Your task to perform on an android device: Show me productivity apps on the Play Store Image 0: 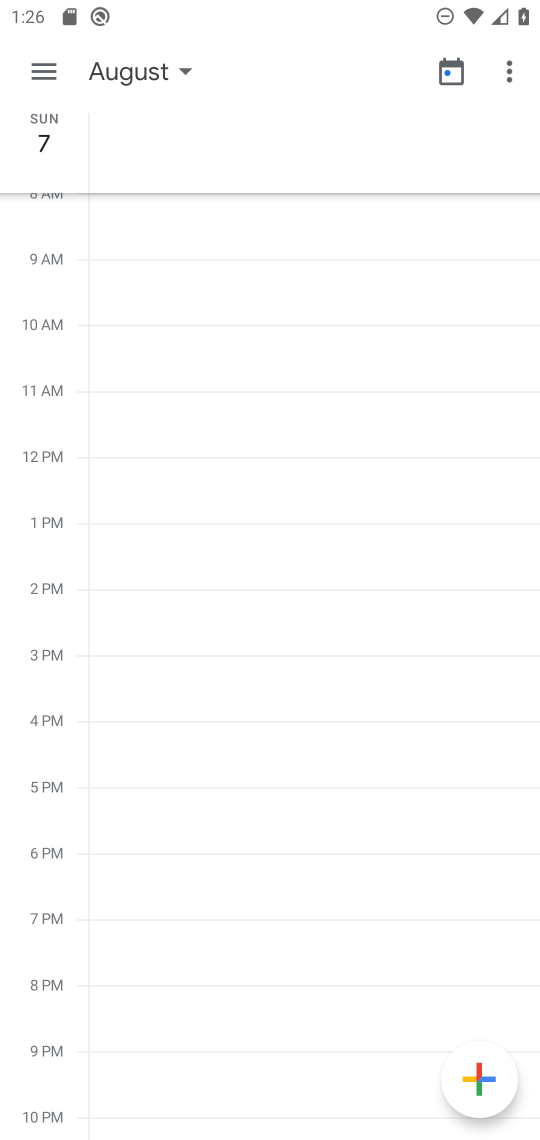
Step 0: press home button
Your task to perform on an android device: Show me productivity apps on the Play Store Image 1: 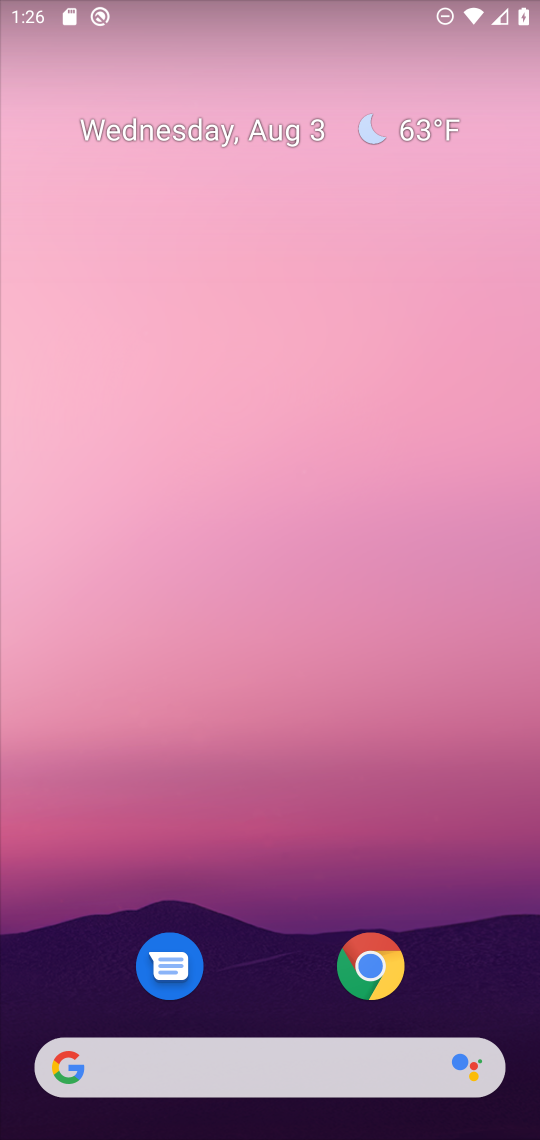
Step 1: drag from (270, 957) to (195, 264)
Your task to perform on an android device: Show me productivity apps on the Play Store Image 2: 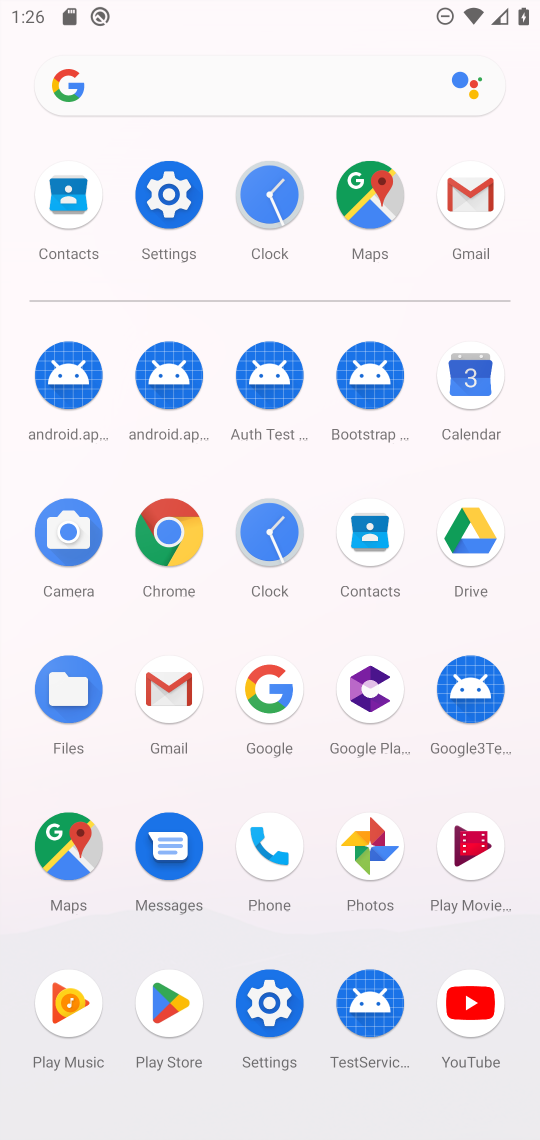
Step 2: click (179, 1004)
Your task to perform on an android device: Show me productivity apps on the Play Store Image 3: 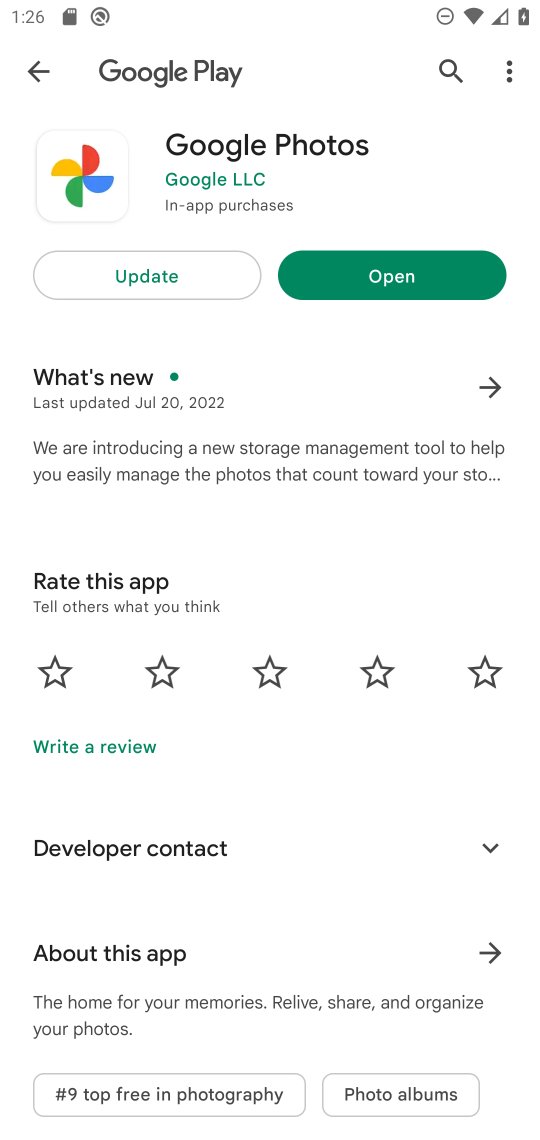
Step 3: click (448, 76)
Your task to perform on an android device: Show me productivity apps on the Play Store Image 4: 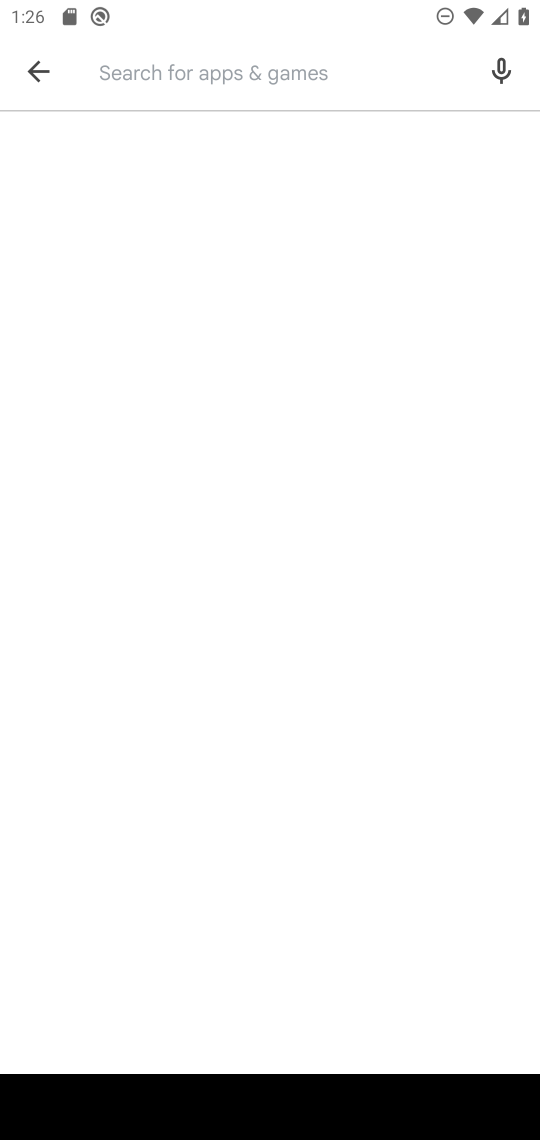
Step 4: click (38, 66)
Your task to perform on an android device: Show me productivity apps on the Play Store Image 5: 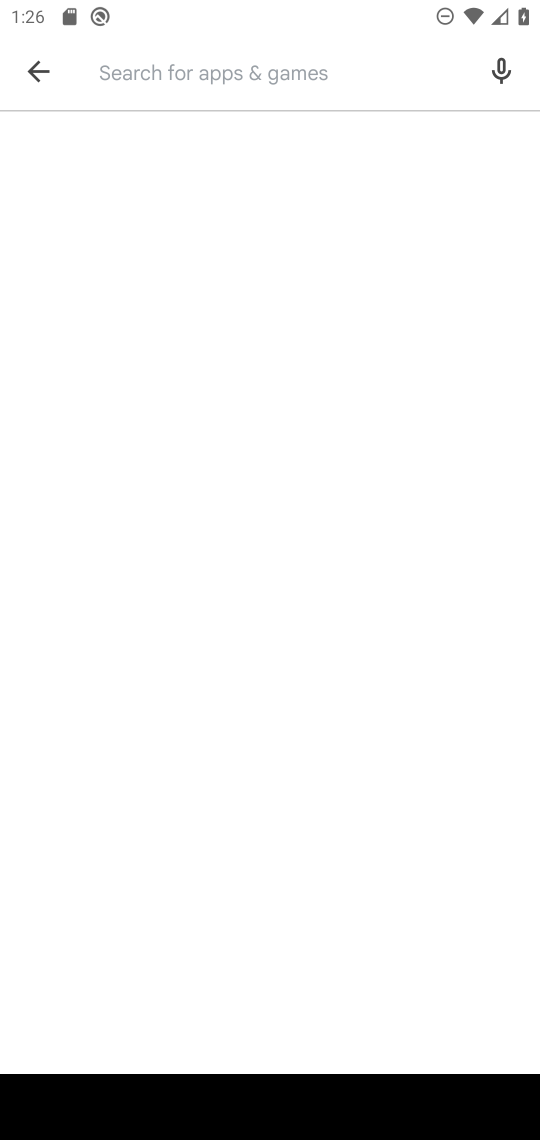
Step 5: click (43, 77)
Your task to perform on an android device: Show me productivity apps on the Play Store Image 6: 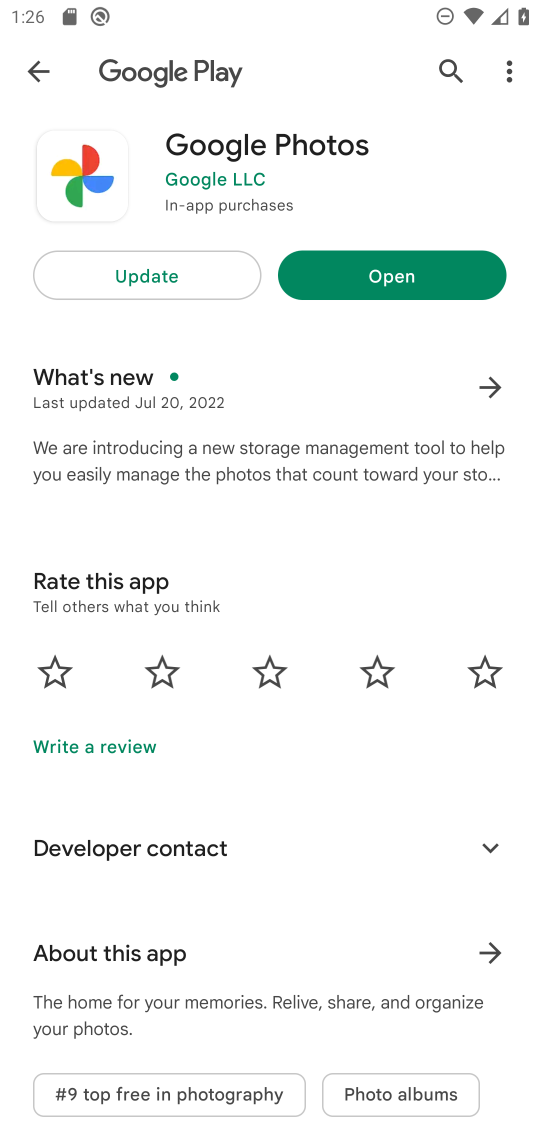
Step 6: click (43, 77)
Your task to perform on an android device: Show me productivity apps on the Play Store Image 7: 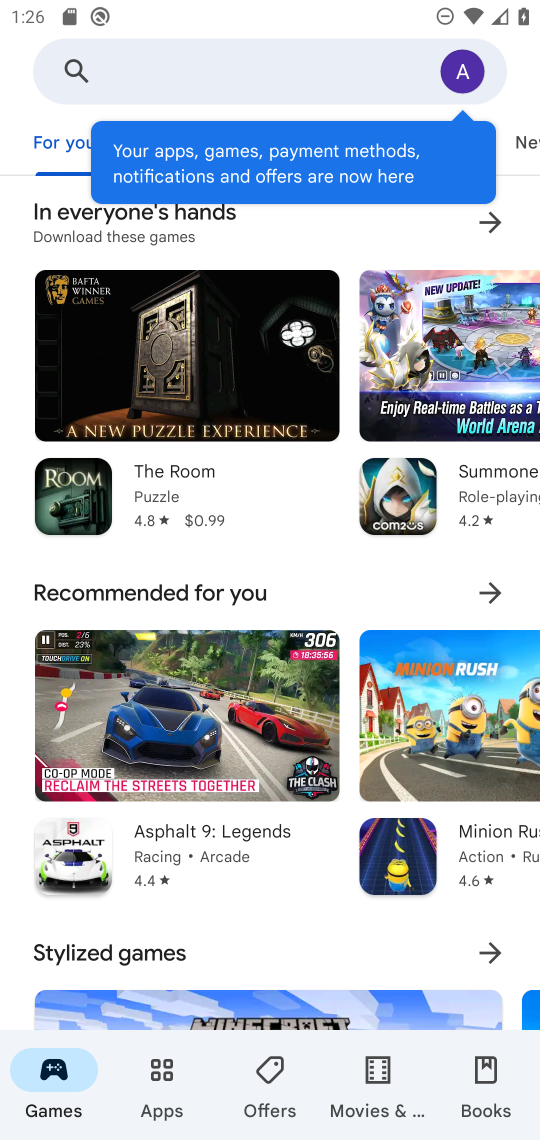
Step 7: drag from (322, 157) to (48, 157)
Your task to perform on an android device: Show me productivity apps on the Play Store Image 8: 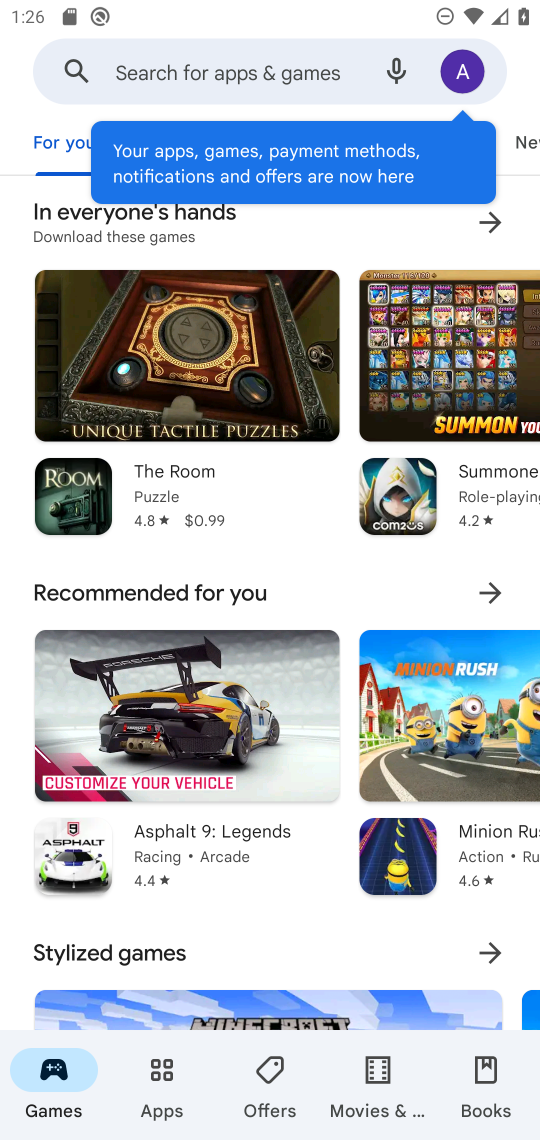
Step 8: click (162, 1068)
Your task to perform on an android device: Show me productivity apps on the Play Store Image 9: 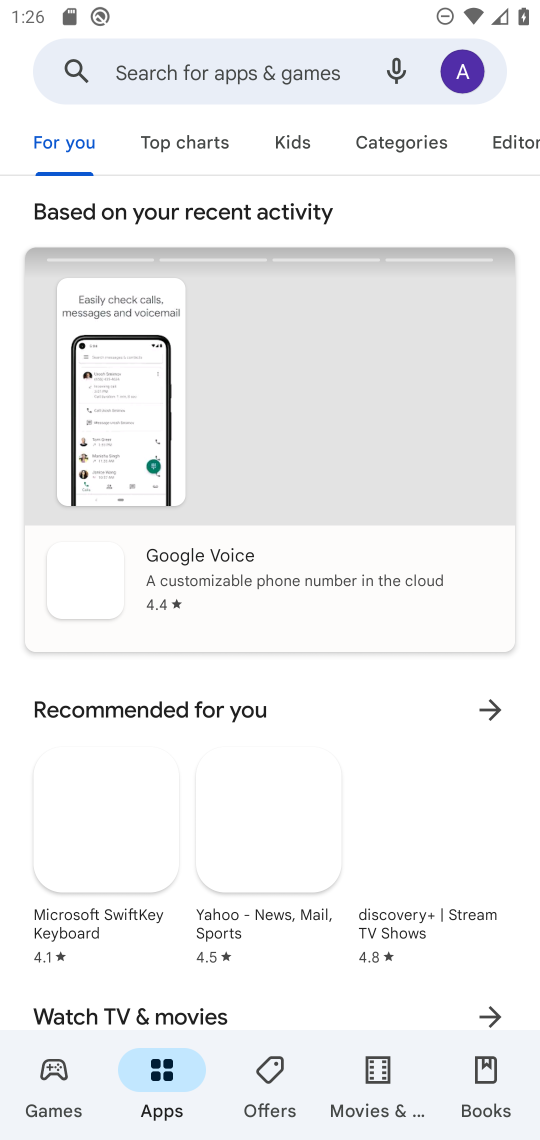
Step 9: click (375, 144)
Your task to perform on an android device: Show me productivity apps on the Play Store Image 10: 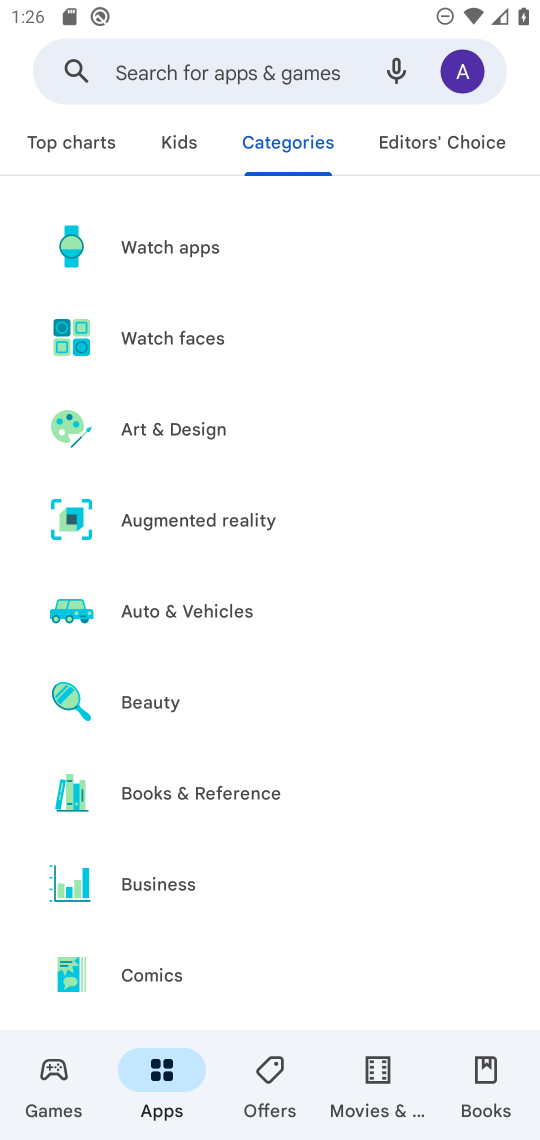
Step 10: drag from (234, 960) to (197, 42)
Your task to perform on an android device: Show me productivity apps on the Play Store Image 11: 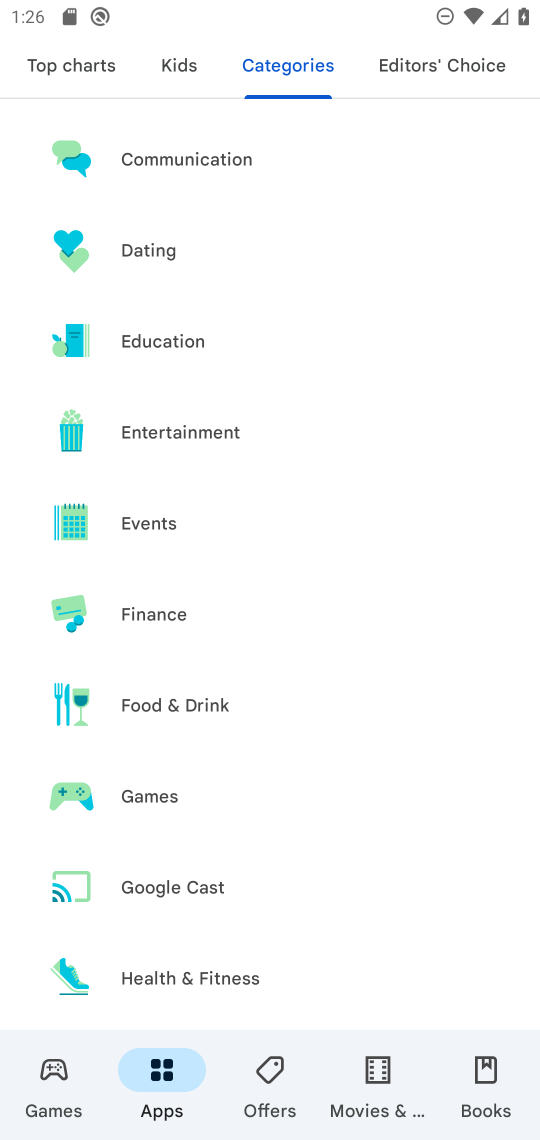
Step 11: drag from (255, 935) to (245, 194)
Your task to perform on an android device: Show me productivity apps on the Play Store Image 12: 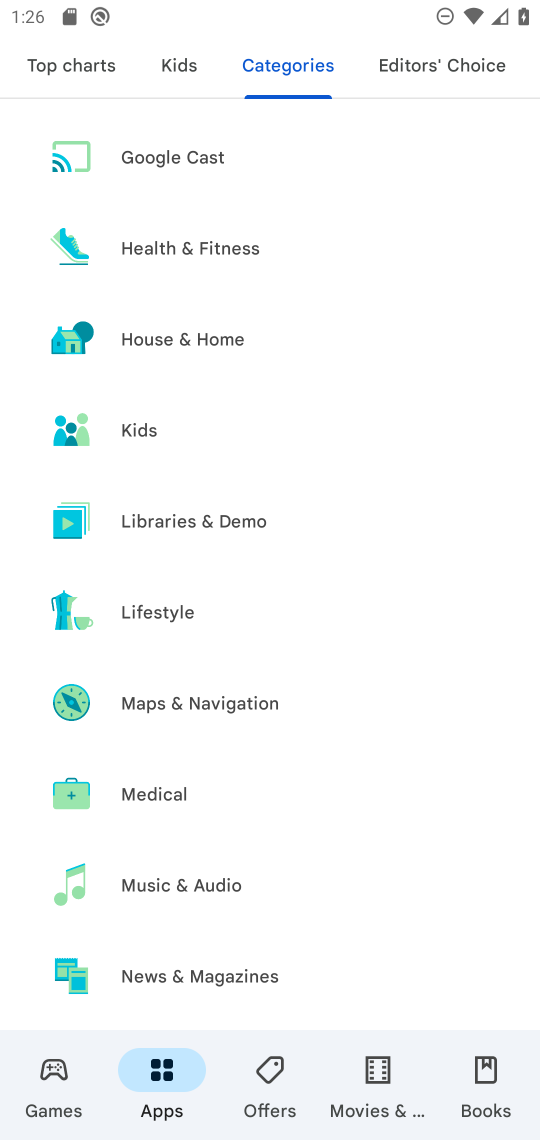
Step 12: drag from (230, 884) to (288, 175)
Your task to perform on an android device: Show me productivity apps on the Play Store Image 13: 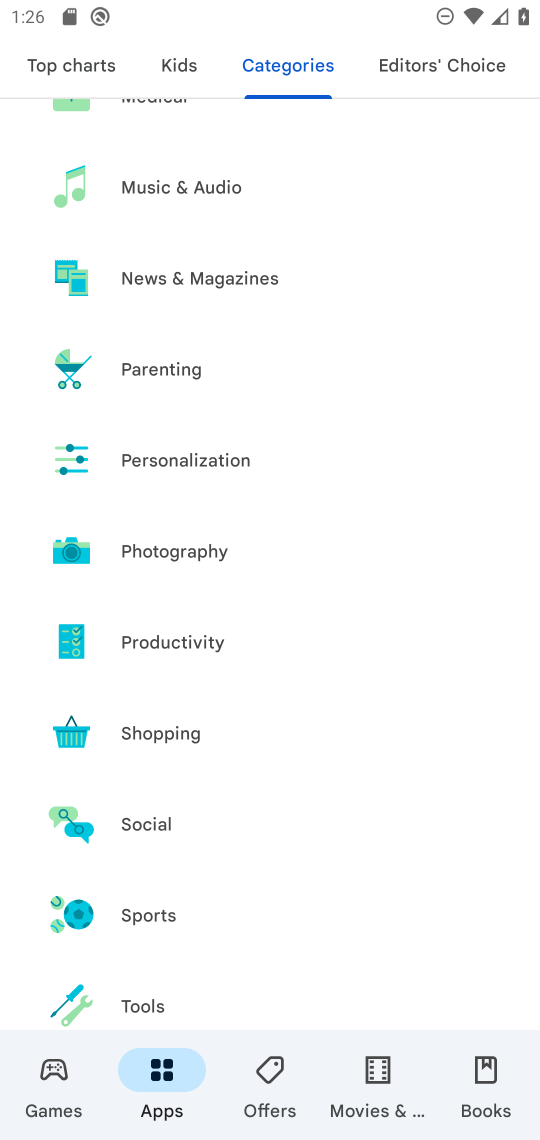
Step 13: click (245, 657)
Your task to perform on an android device: Show me productivity apps on the Play Store Image 14: 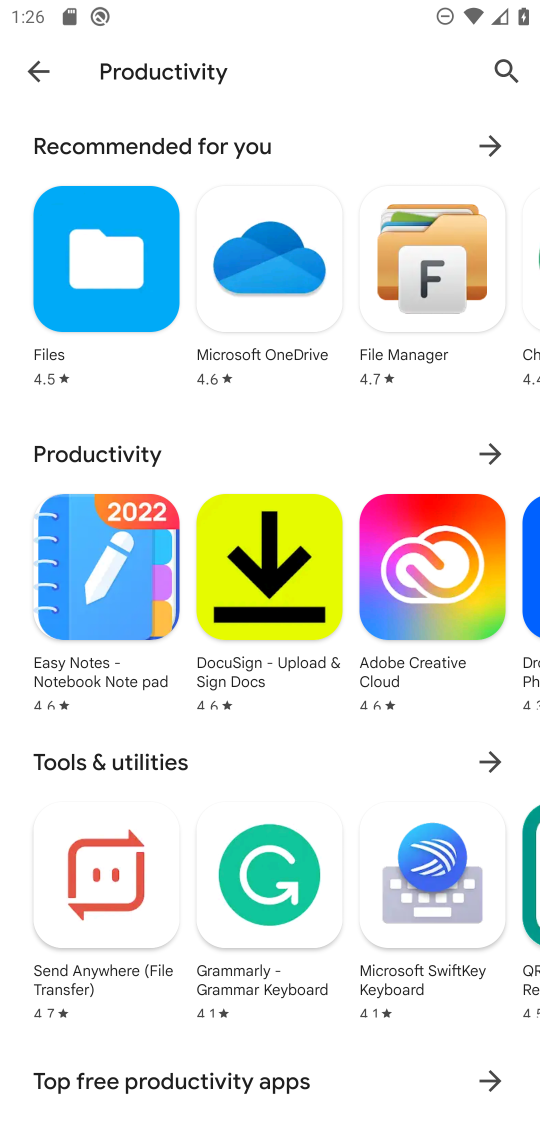
Step 14: task complete